Your task to perform on an android device: change the clock display to show seconds Image 0: 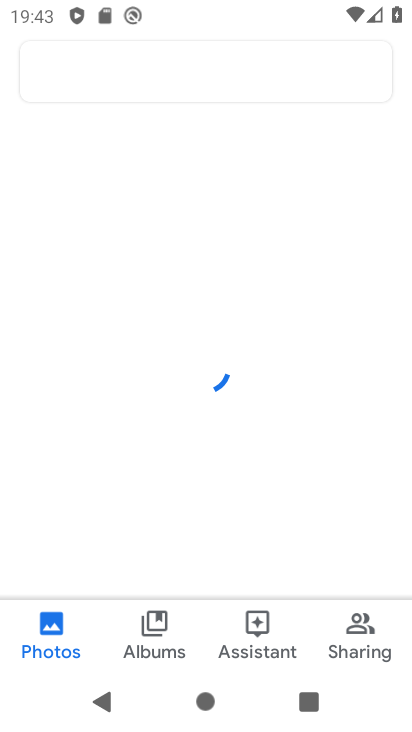
Step 0: press home button
Your task to perform on an android device: change the clock display to show seconds Image 1: 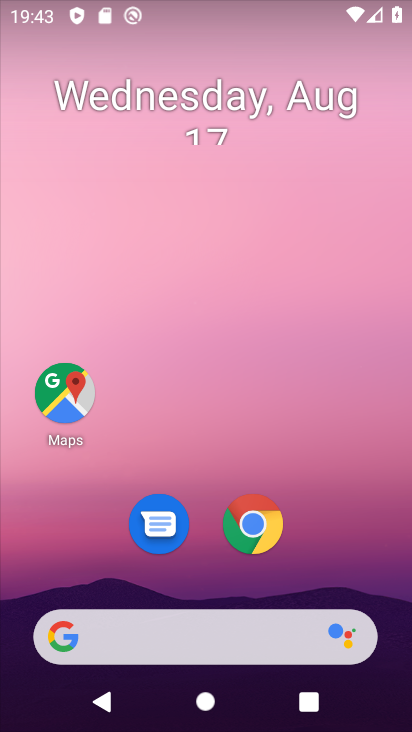
Step 1: drag from (362, 492) to (362, 63)
Your task to perform on an android device: change the clock display to show seconds Image 2: 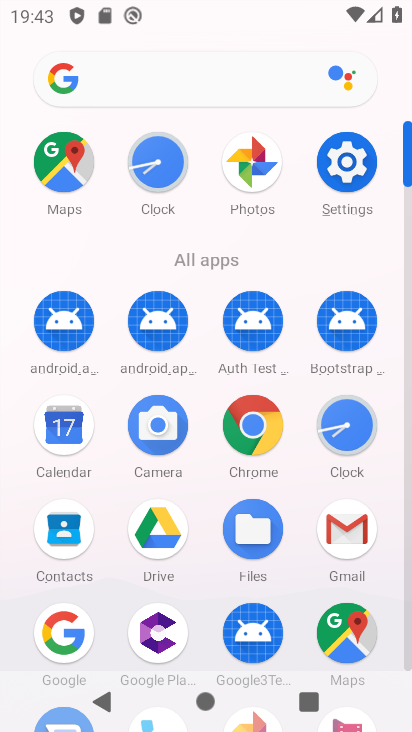
Step 2: click (153, 156)
Your task to perform on an android device: change the clock display to show seconds Image 3: 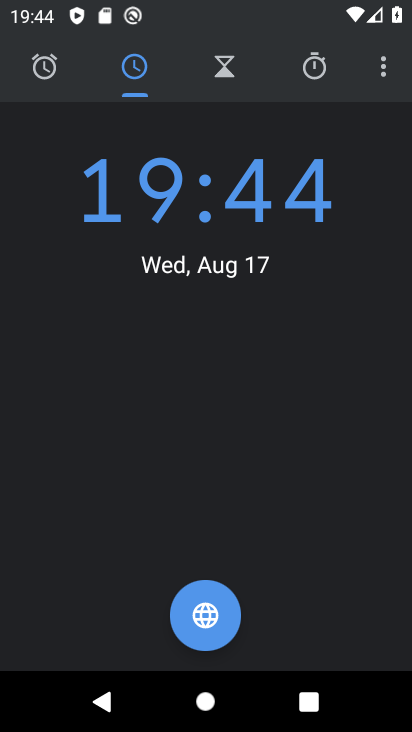
Step 3: click (385, 74)
Your task to perform on an android device: change the clock display to show seconds Image 4: 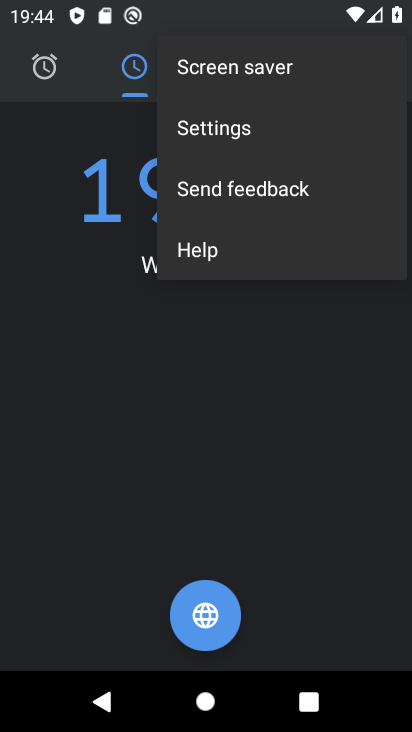
Step 4: click (306, 143)
Your task to perform on an android device: change the clock display to show seconds Image 5: 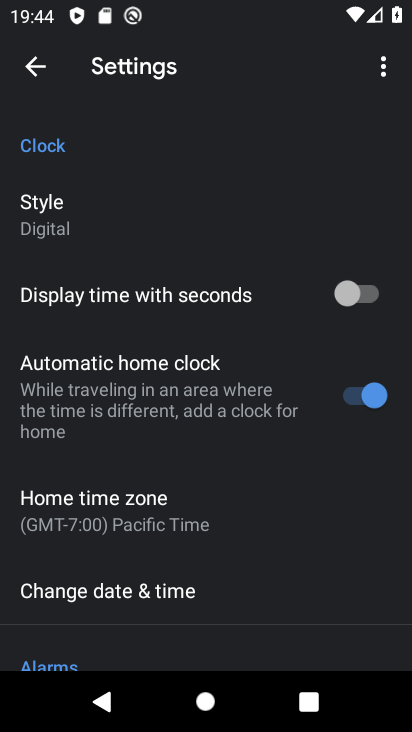
Step 5: click (371, 296)
Your task to perform on an android device: change the clock display to show seconds Image 6: 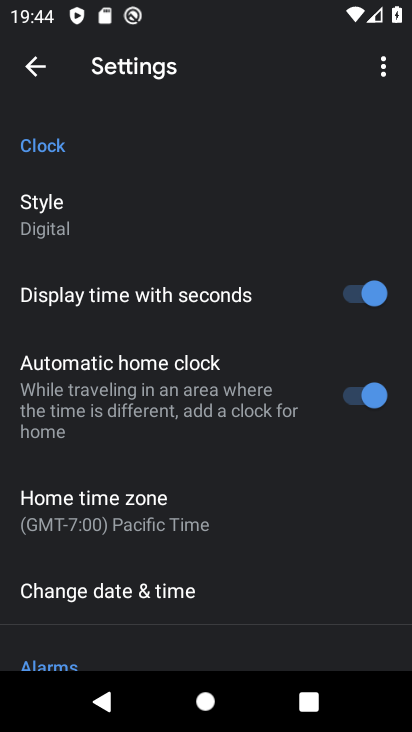
Step 6: click (41, 65)
Your task to perform on an android device: change the clock display to show seconds Image 7: 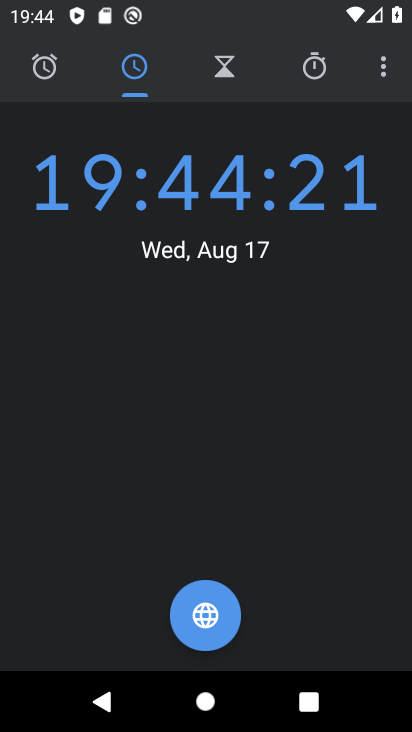
Step 7: task complete